Your task to perform on an android device: turn notification dots on Image 0: 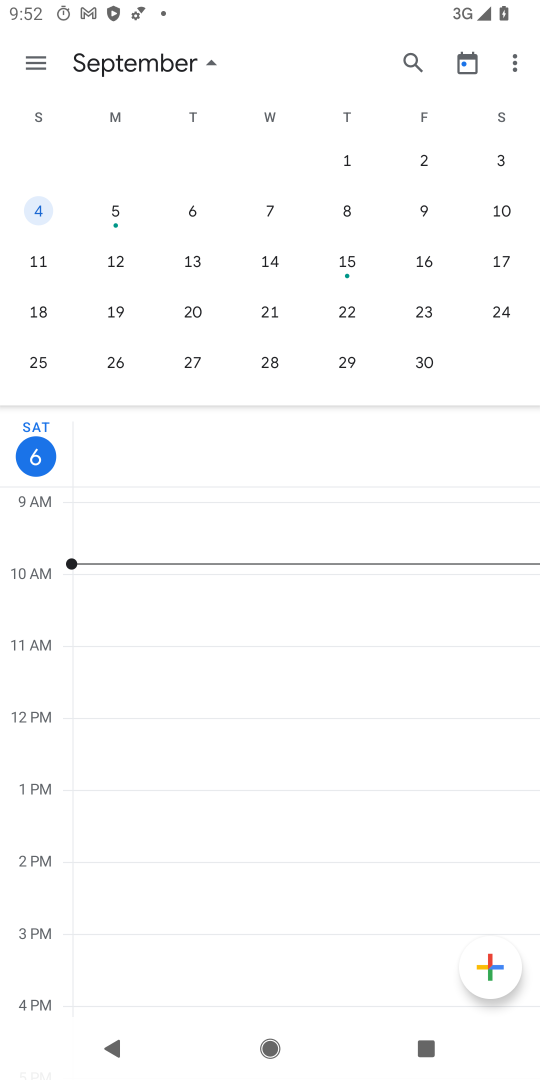
Step 0: press home button
Your task to perform on an android device: turn notification dots on Image 1: 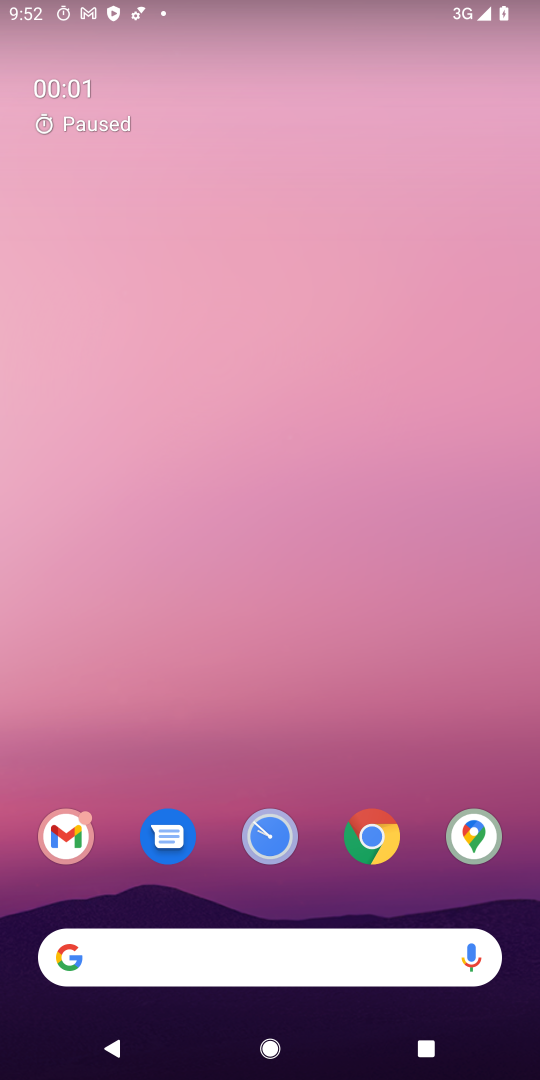
Step 1: drag from (467, 921) to (277, 194)
Your task to perform on an android device: turn notification dots on Image 2: 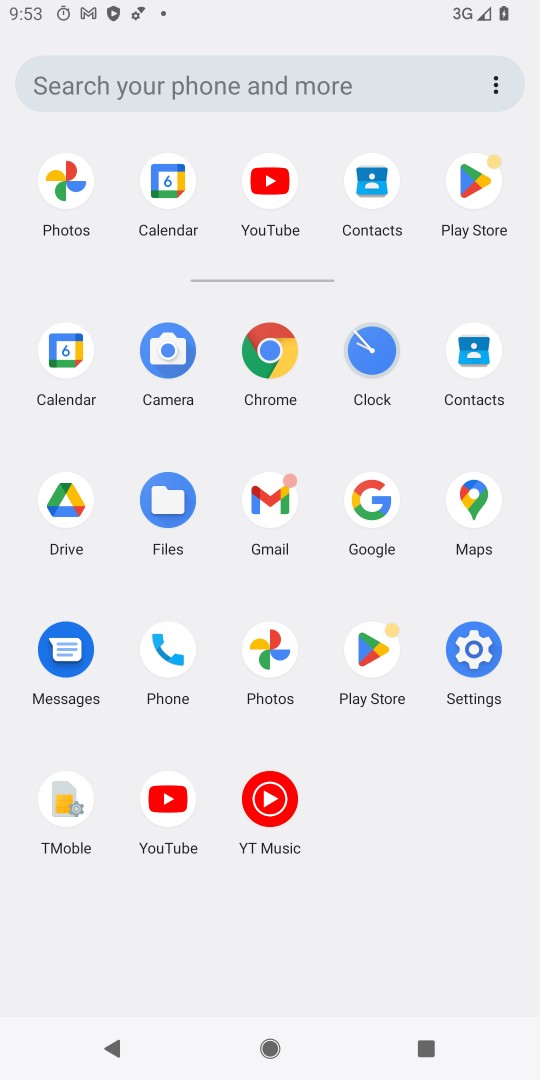
Step 2: click (465, 672)
Your task to perform on an android device: turn notification dots on Image 3: 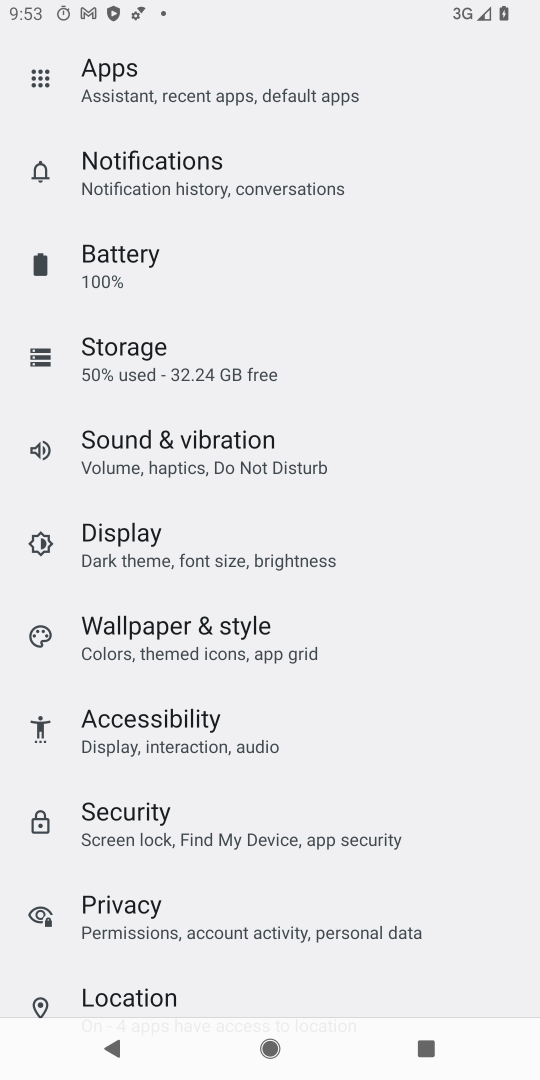
Step 3: click (197, 179)
Your task to perform on an android device: turn notification dots on Image 4: 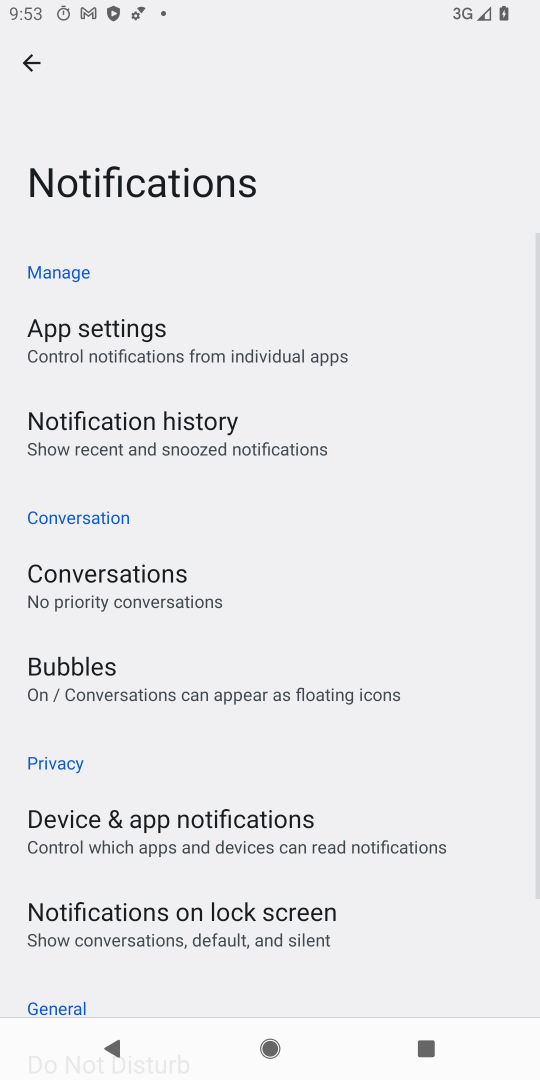
Step 4: task complete